Your task to perform on an android device: turn off notifications in google photos Image 0: 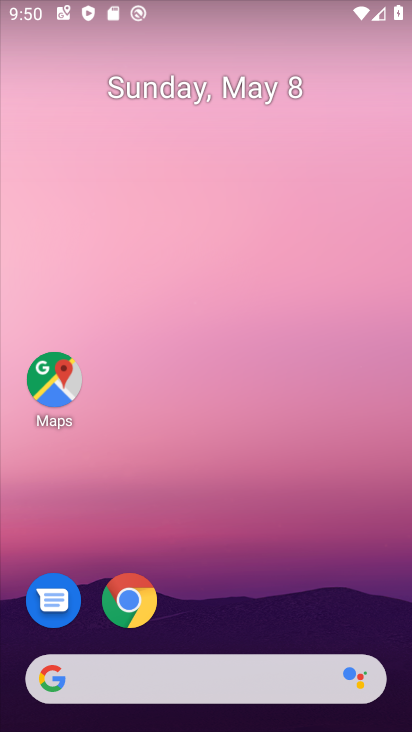
Step 0: drag from (210, 688) to (174, 41)
Your task to perform on an android device: turn off notifications in google photos Image 1: 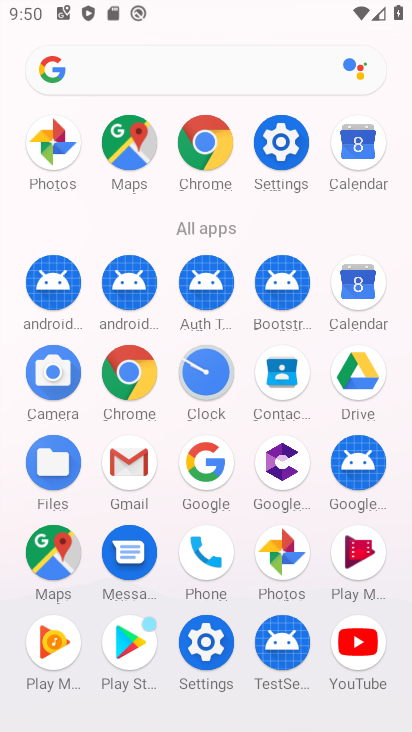
Step 1: click (278, 556)
Your task to perform on an android device: turn off notifications in google photos Image 2: 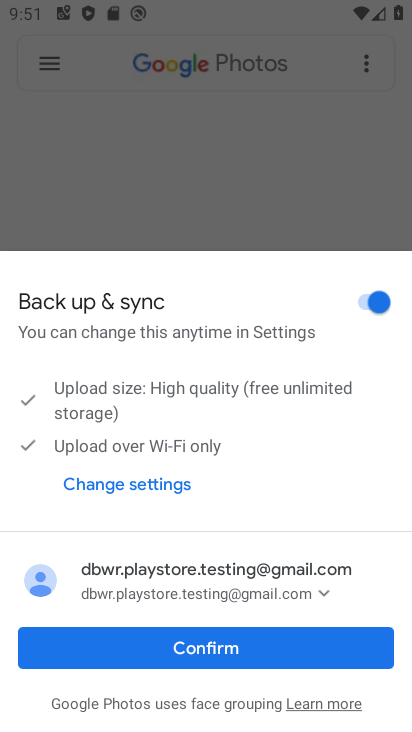
Step 2: click (258, 645)
Your task to perform on an android device: turn off notifications in google photos Image 3: 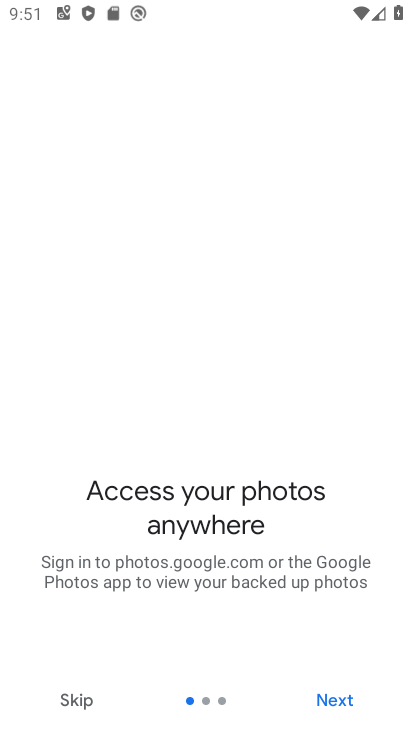
Step 3: click (348, 706)
Your task to perform on an android device: turn off notifications in google photos Image 4: 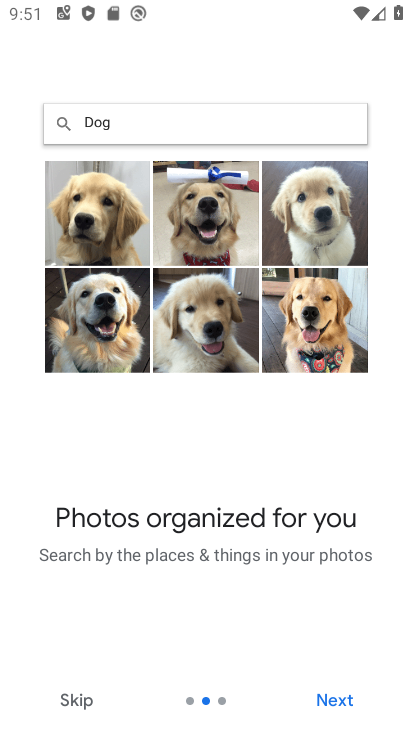
Step 4: click (325, 704)
Your task to perform on an android device: turn off notifications in google photos Image 5: 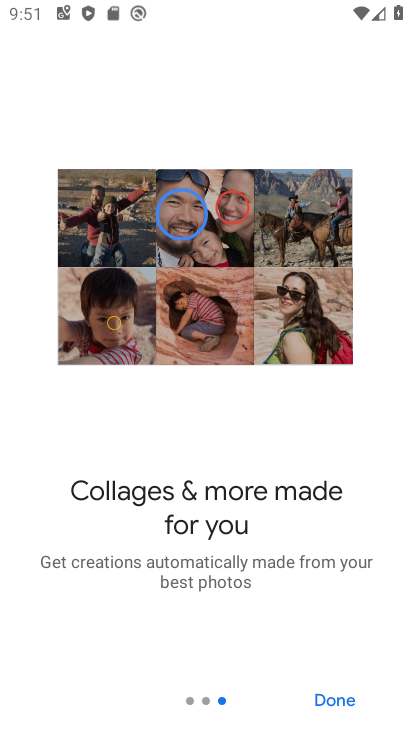
Step 5: click (325, 704)
Your task to perform on an android device: turn off notifications in google photos Image 6: 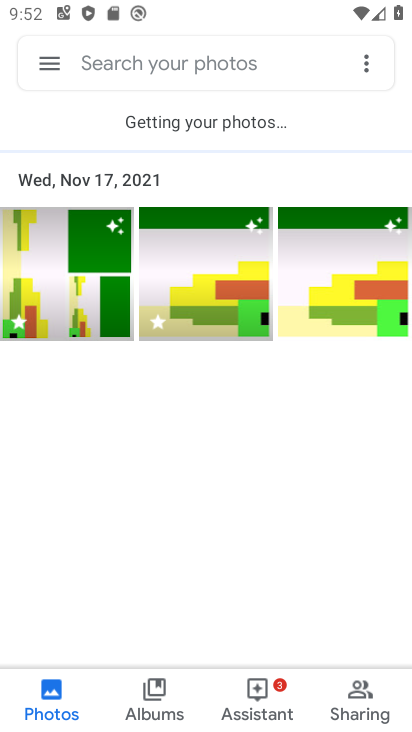
Step 6: click (39, 80)
Your task to perform on an android device: turn off notifications in google photos Image 7: 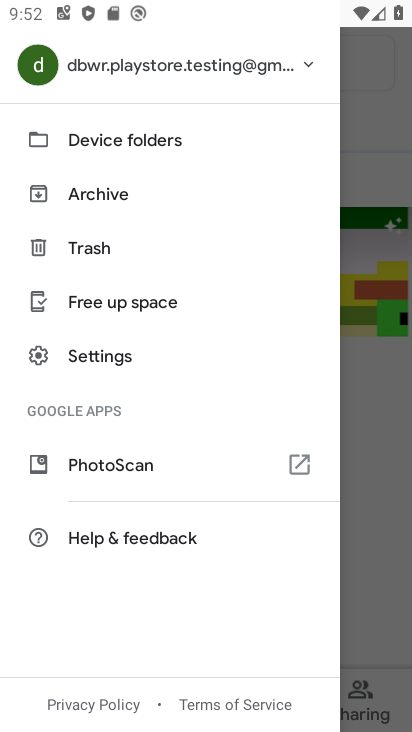
Step 7: click (88, 355)
Your task to perform on an android device: turn off notifications in google photos Image 8: 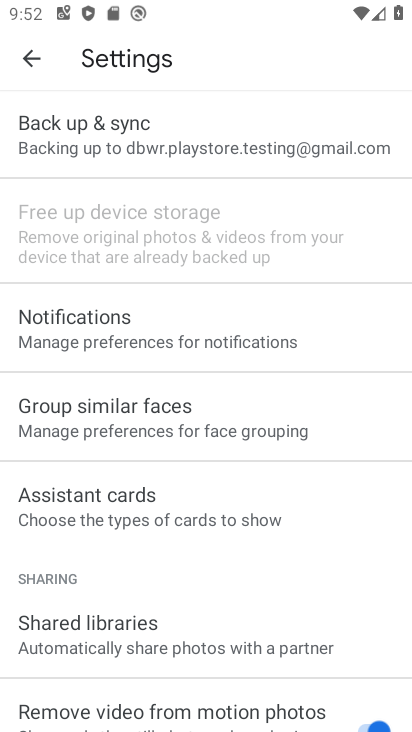
Step 8: click (153, 334)
Your task to perform on an android device: turn off notifications in google photos Image 9: 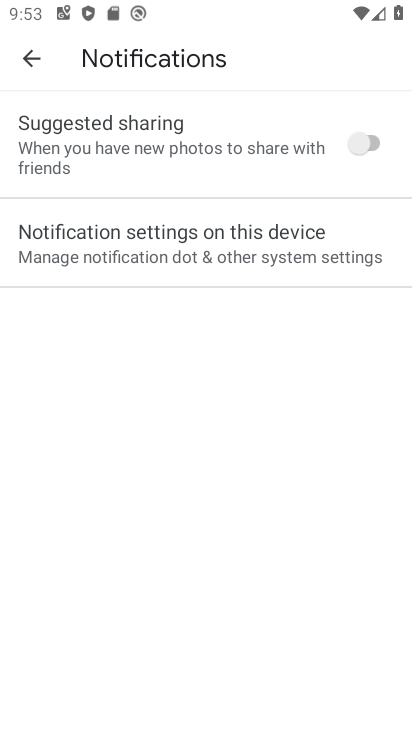
Step 9: click (300, 258)
Your task to perform on an android device: turn off notifications in google photos Image 10: 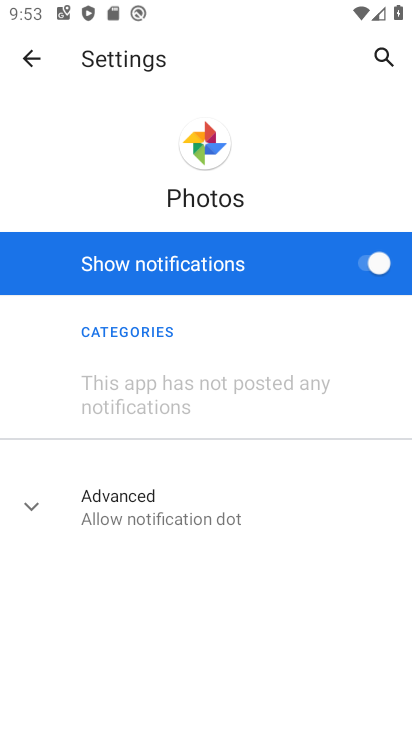
Step 10: click (369, 259)
Your task to perform on an android device: turn off notifications in google photos Image 11: 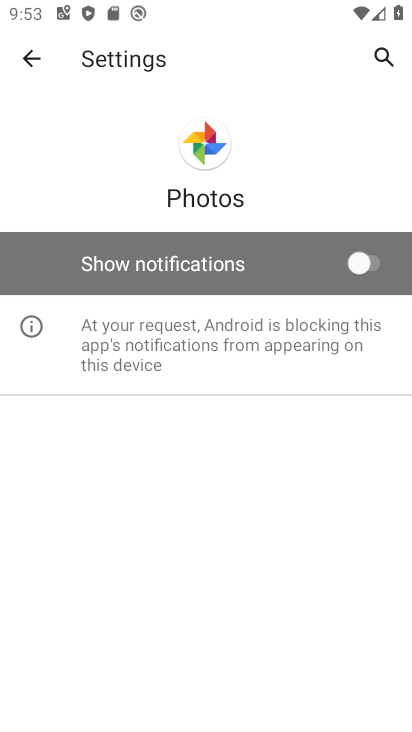
Step 11: task complete